Your task to perform on an android device: Go to wifi settings Image 0: 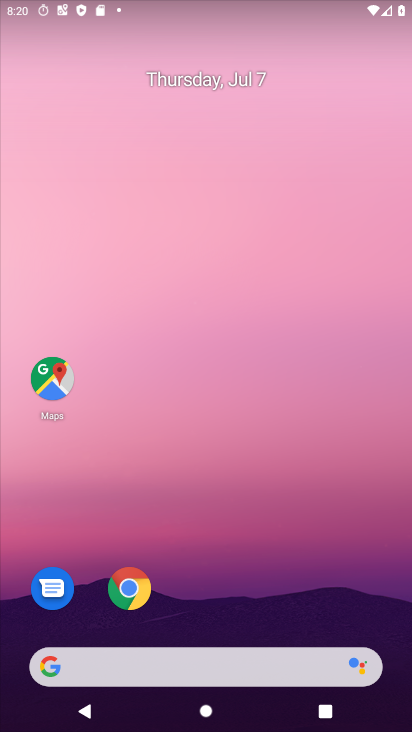
Step 0: drag from (181, 665) to (205, 34)
Your task to perform on an android device: Go to wifi settings Image 1: 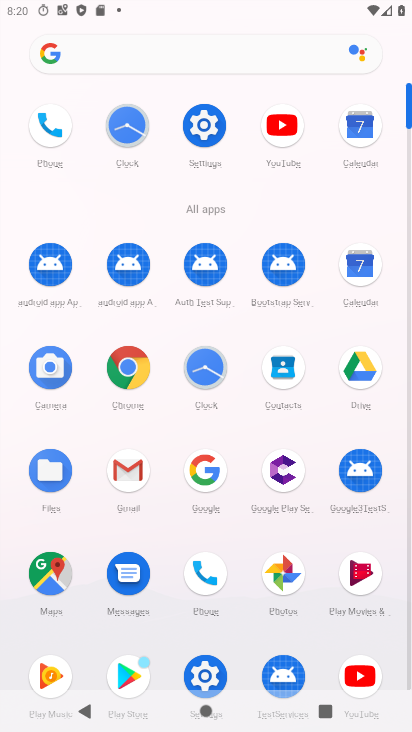
Step 1: click (210, 124)
Your task to perform on an android device: Go to wifi settings Image 2: 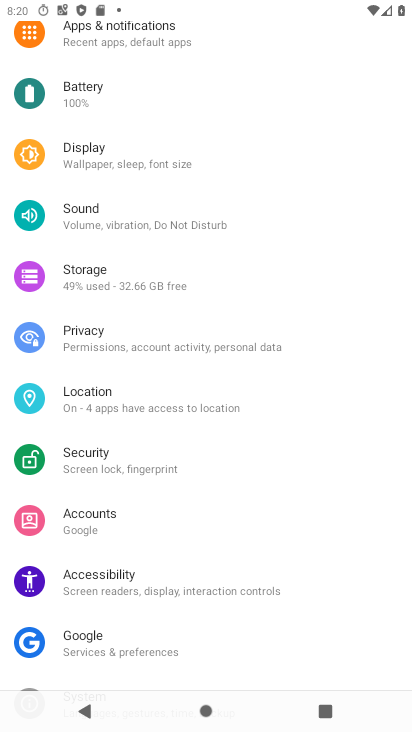
Step 2: drag from (204, 92) to (219, 530)
Your task to perform on an android device: Go to wifi settings Image 3: 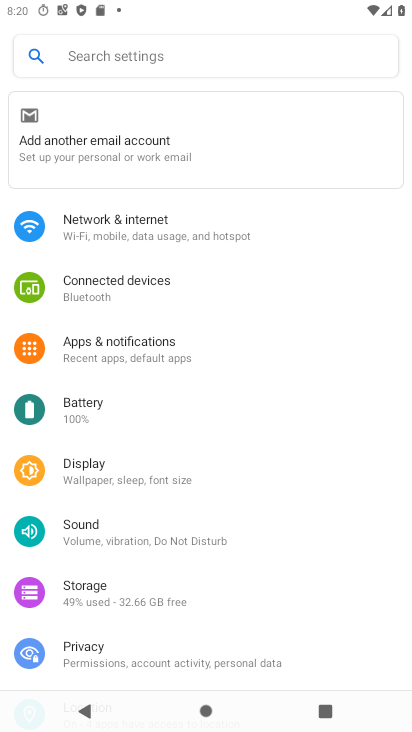
Step 3: click (134, 221)
Your task to perform on an android device: Go to wifi settings Image 4: 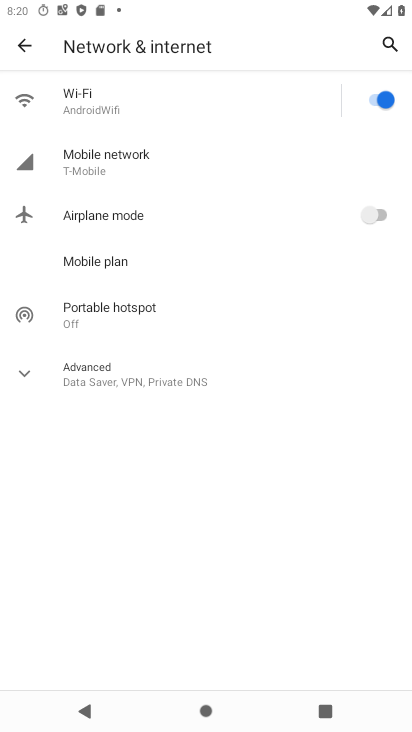
Step 4: click (119, 107)
Your task to perform on an android device: Go to wifi settings Image 5: 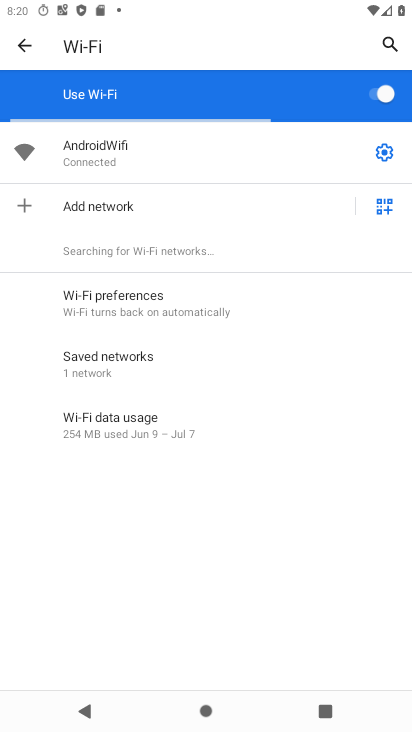
Step 5: click (135, 146)
Your task to perform on an android device: Go to wifi settings Image 6: 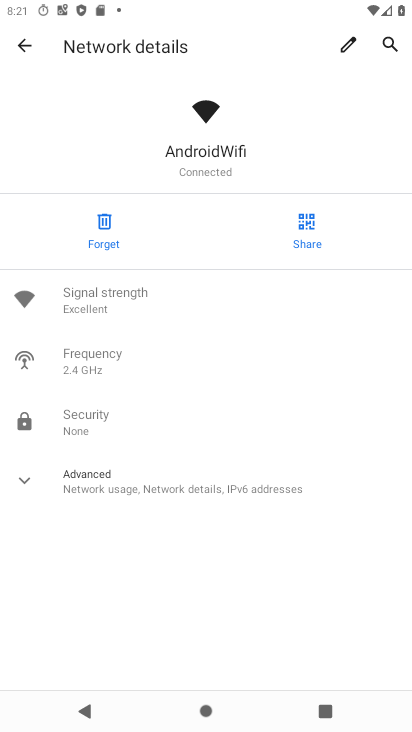
Step 6: task complete